Your task to perform on an android device: turn on translation in the chrome app Image 0: 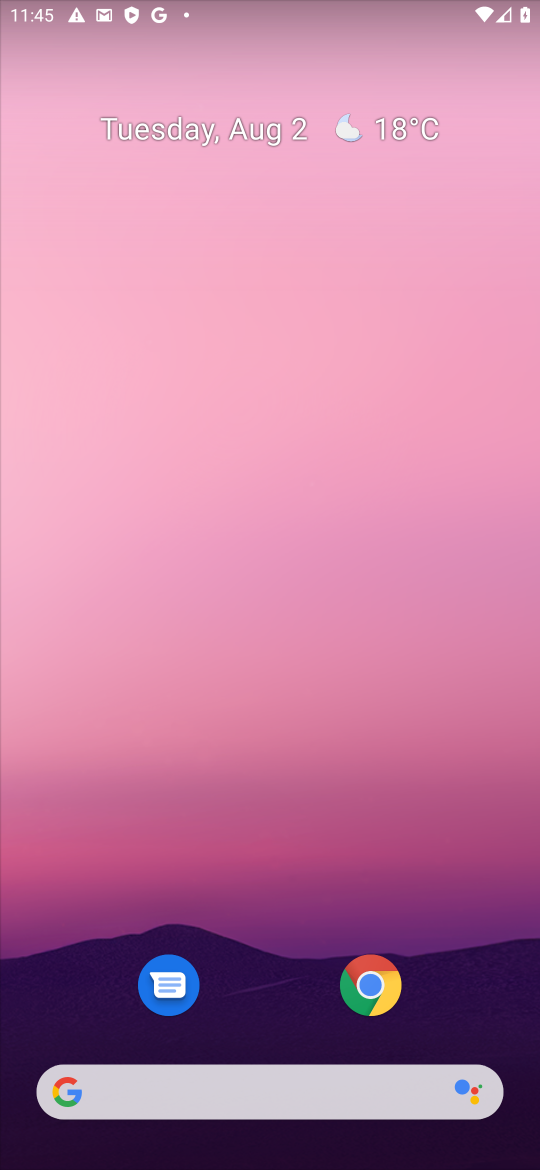
Step 0: click (371, 991)
Your task to perform on an android device: turn on translation in the chrome app Image 1: 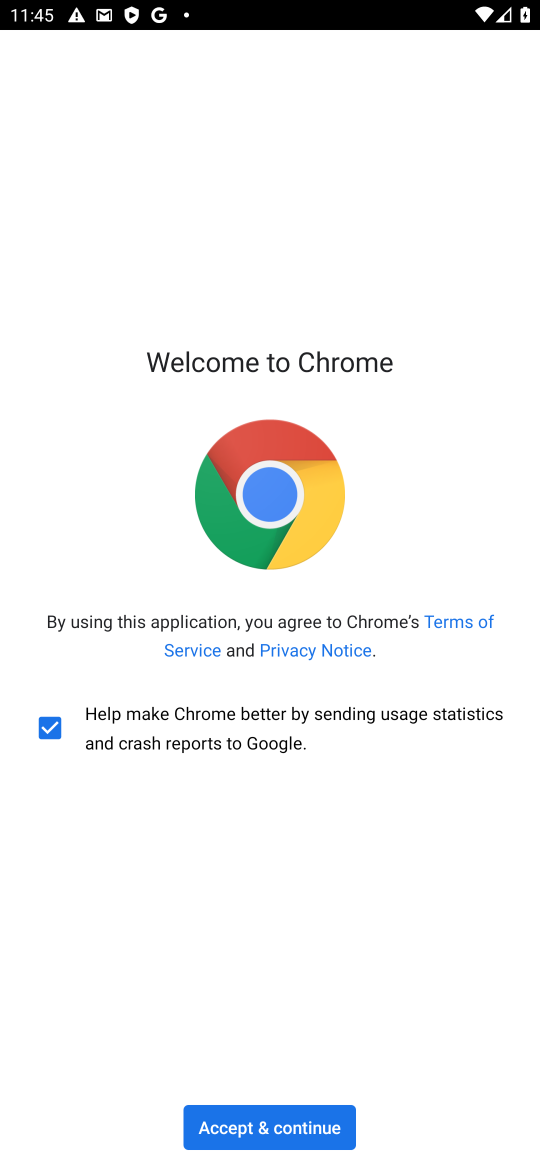
Step 1: click (251, 1119)
Your task to perform on an android device: turn on translation in the chrome app Image 2: 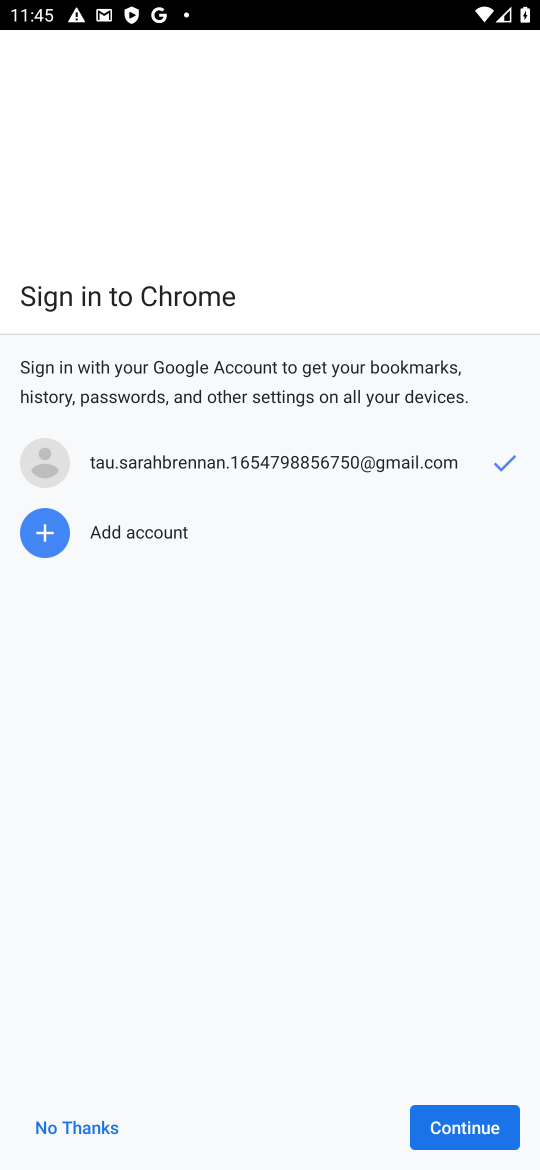
Step 2: click (437, 1138)
Your task to perform on an android device: turn on translation in the chrome app Image 3: 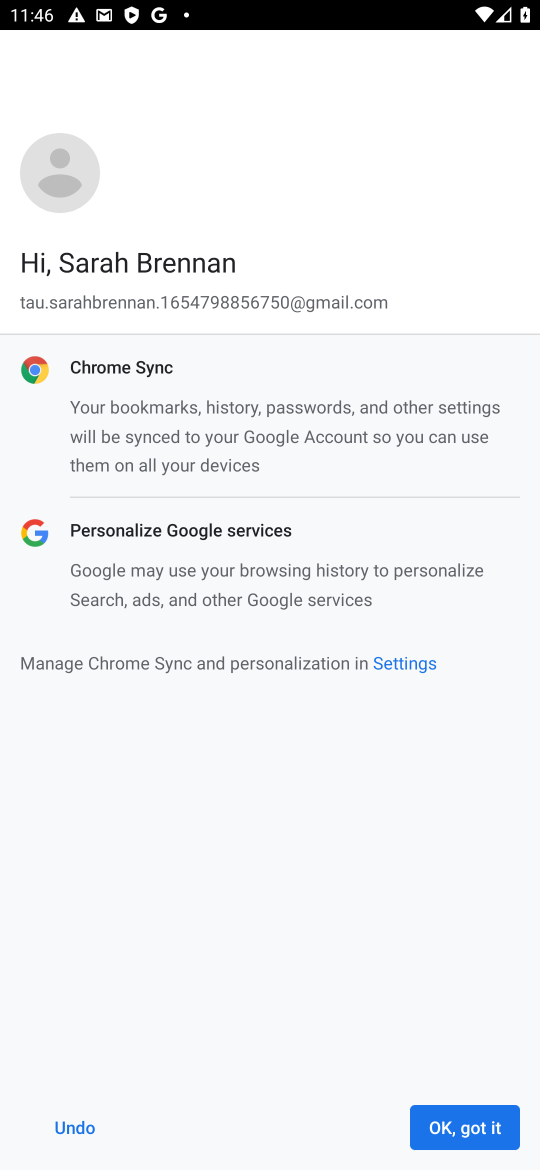
Step 3: click (411, 1144)
Your task to perform on an android device: turn on translation in the chrome app Image 4: 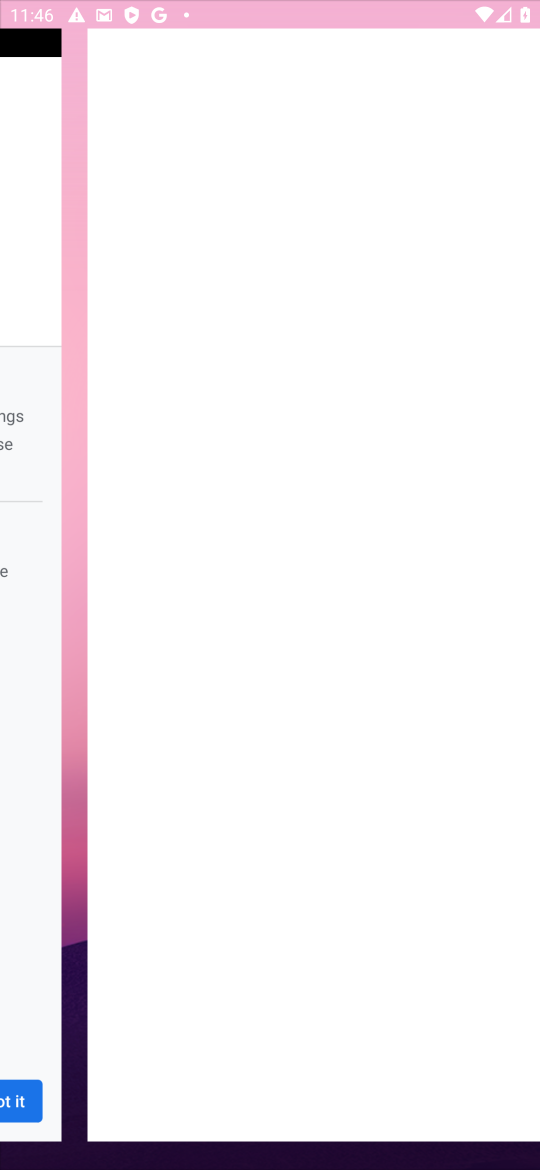
Step 4: task complete